Your task to perform on an android device: open the mobile data screen to see how much data has been used Image 0: 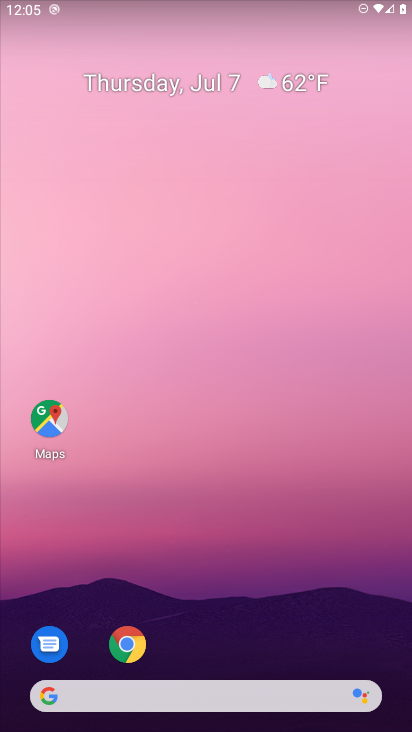
Step 0: press home button
Your task to perform on an android device: open the mobile data screen to see how much data has been used Image 1: 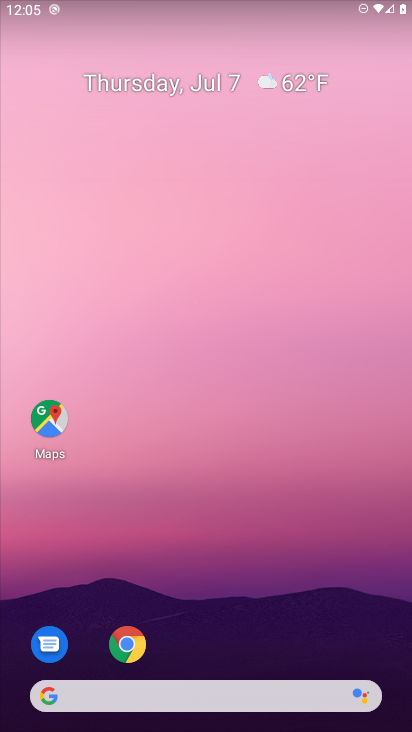
Step 1: drag from (298, 564) to (375, 371)
Your task to perform on an android device: open the mobile data screen to see how much data has been used Image 2: 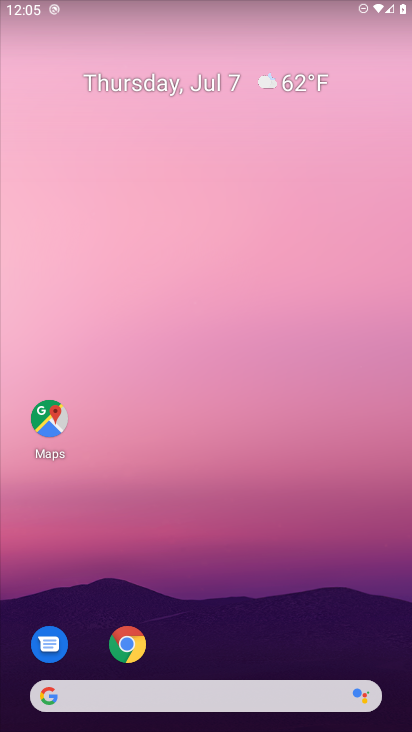
Step 2: drag from (201, 405) to (322, 24)
Your task to perform on an android device: open the mobile data screen to see how much data has been used Image 3: 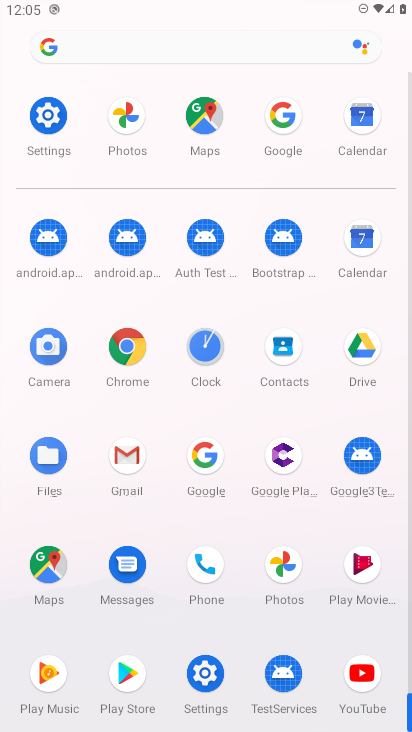
Step 3: click (52, 109)
Your task to perform on an android device: open the mobile data screen to see how much data has been used Image 4: 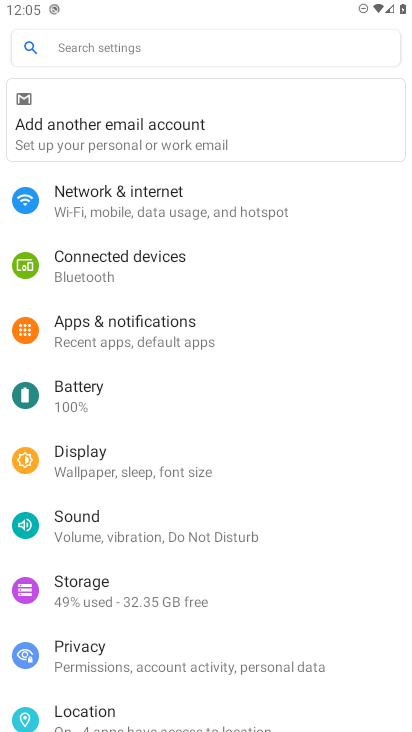
Step 4: click (192, 203)
Your task to perform on an android device: open the mobile data screen to see how much data has been used Image 5: 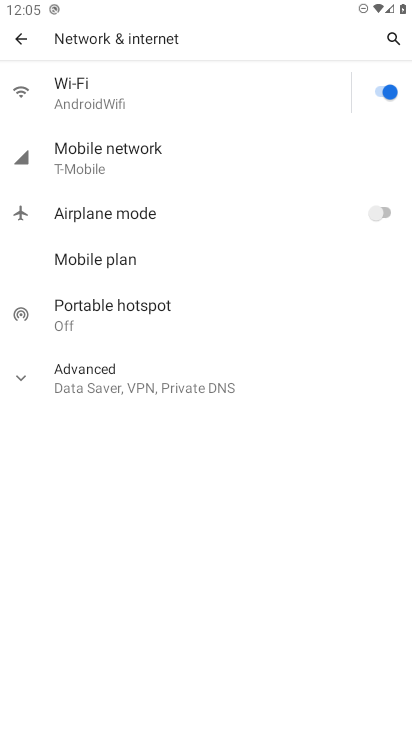
Step 5: click (162, 170)
Your task to perform on an android device: open the mobile data screen to see how much data has been used Image 6: 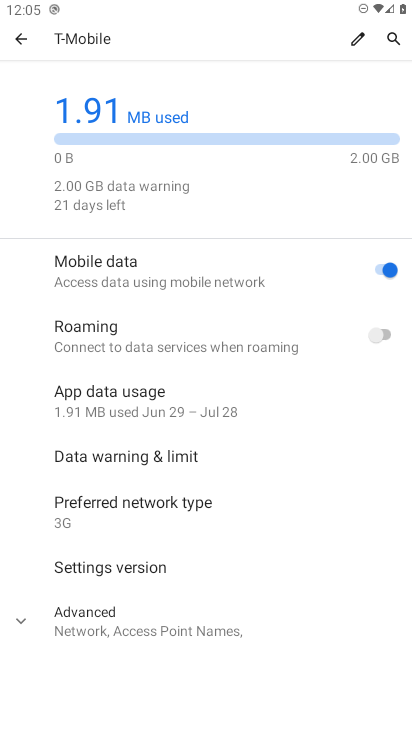
Step 6: task complete